Your task to perform on an android device: turn pop-ups on in chrome Image 0: 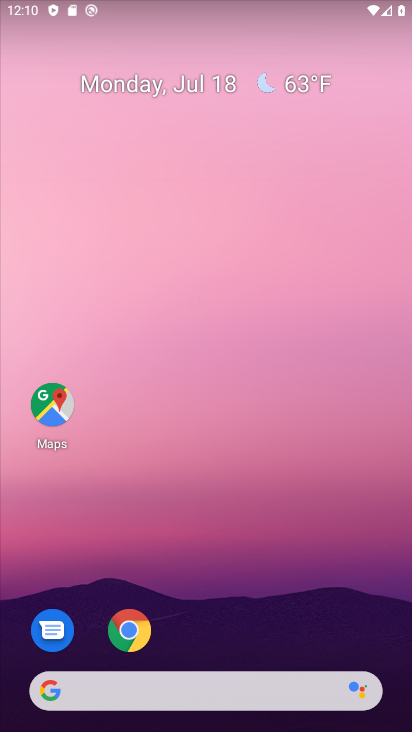
Step 0: click (134, 637)
Your task to perform on an android device: turn pop-ups on in chrome Image 1: 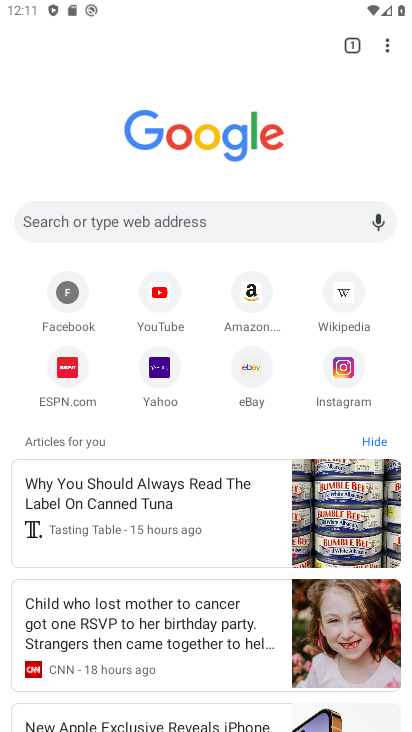
Step 1: drag from (386, 43) to (220, 382)
Your task to perform on an android device: turn pop-ups on in chrome Image 2: 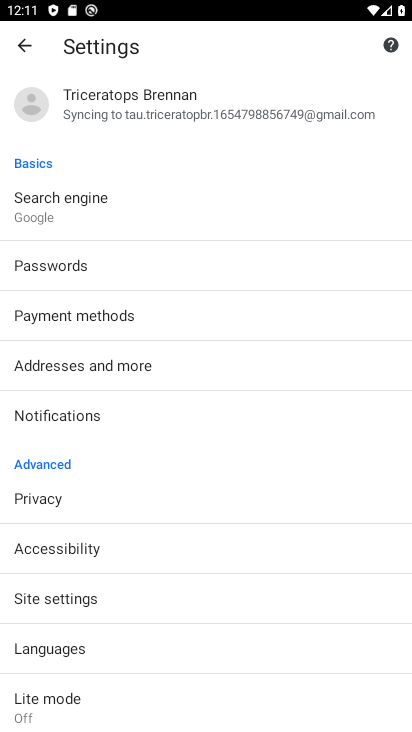
Step 2: click (44, 598)
Your task to perform on an android device: turn pop-ups on in chrome Image 3: 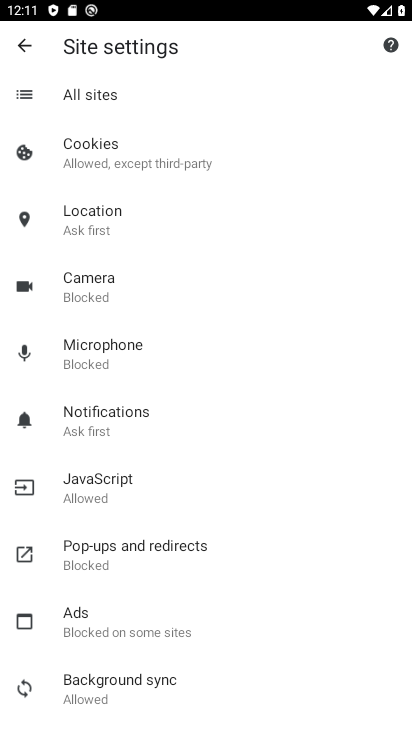
Step 3: click (103, 566)
Your task to perform on an android device: turn pop-ups on in chrome Image 4: 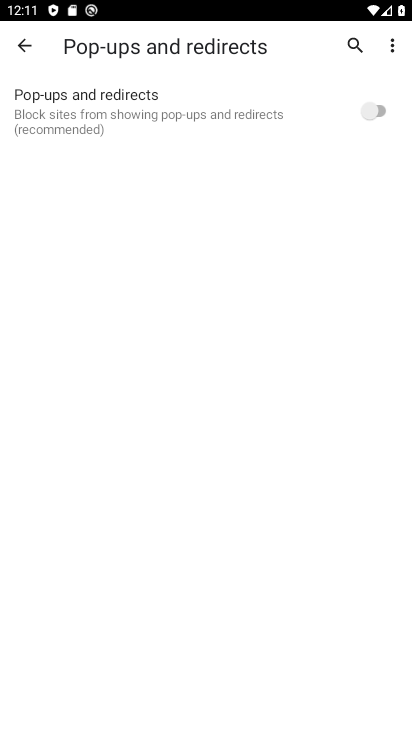
Step 4: click (371, 116)
Your task to perform on an android device: turn pop-ups on in chrome Image 5: 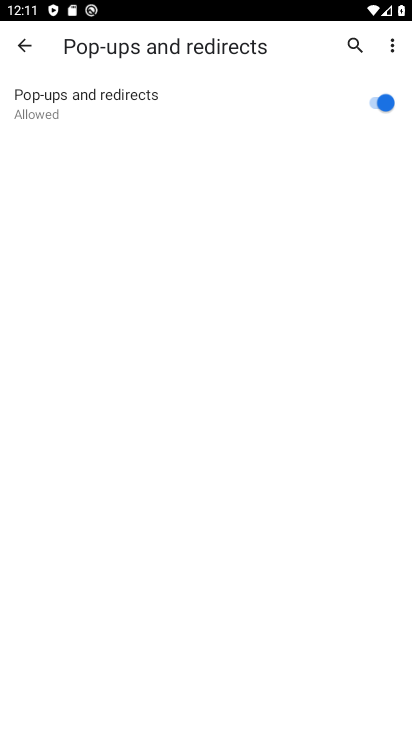
Step 5: task complete